Your task to perform on an android device: turn vacation reply on in the gmail app Image 0: 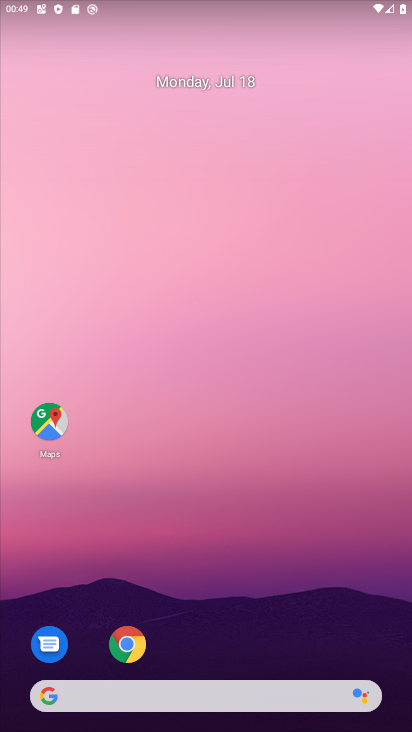
Step 0: press home button
Your task to perform on an android device: turn vacation reply on in the gmail app Image 1: 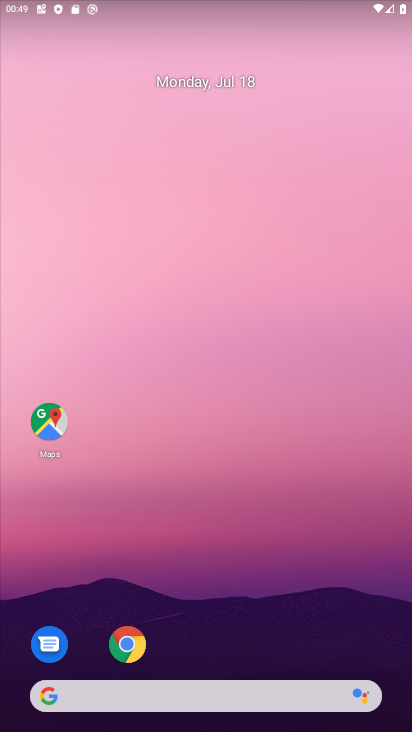
Step 1: drag from (245, 664) to (273, 73)
Your task to perform on an android device: turn vacation reply on in the gmail app Image 2: 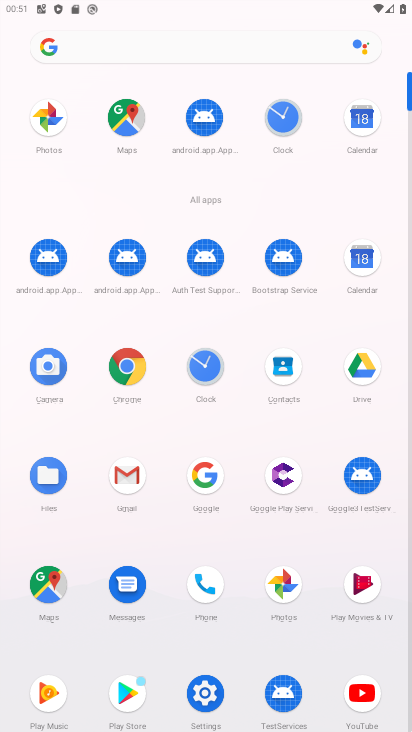
Step 2: click (114, 495)
Your task to perform on an android device: turn vacation reply on in the gmail app Image 3: 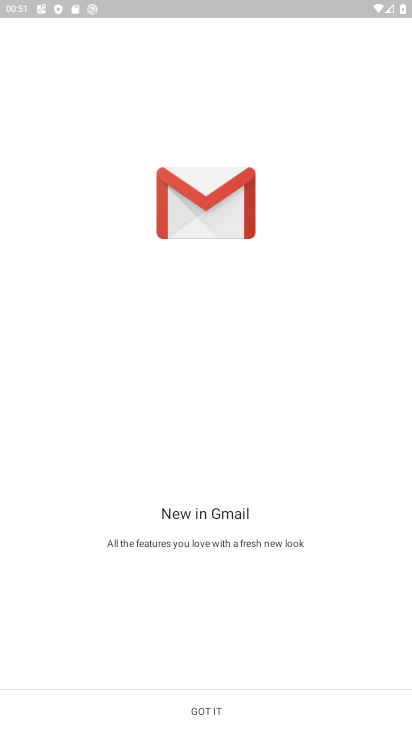
Step 3: click (207, 699)
Your task to perform on an android device: turn vacation reply on in the gmail app Image 4: 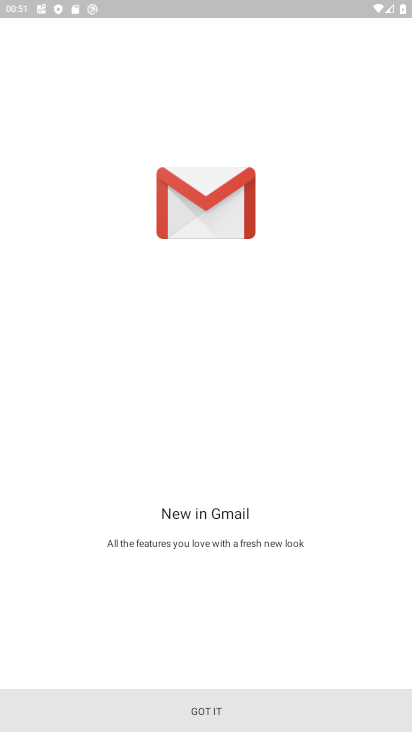
Step 4: click (207, 699)
Your task to perform on an android device: turn vacation reply on in the gmail app Image 5: 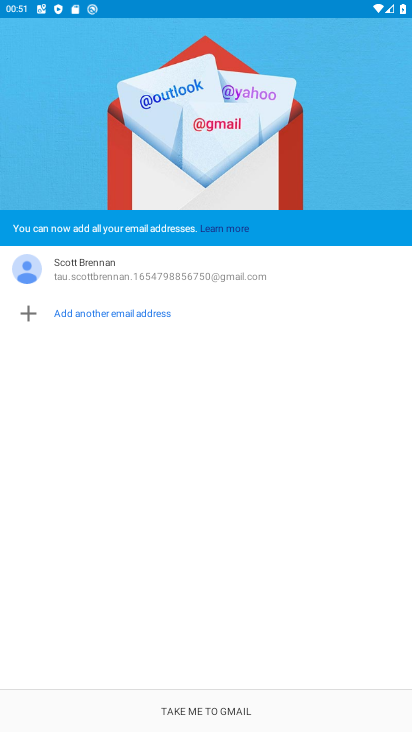
Step 5: click (205, 709)
Your task to perform on an android device: turn vacation reply on in the gmail app Image 6: 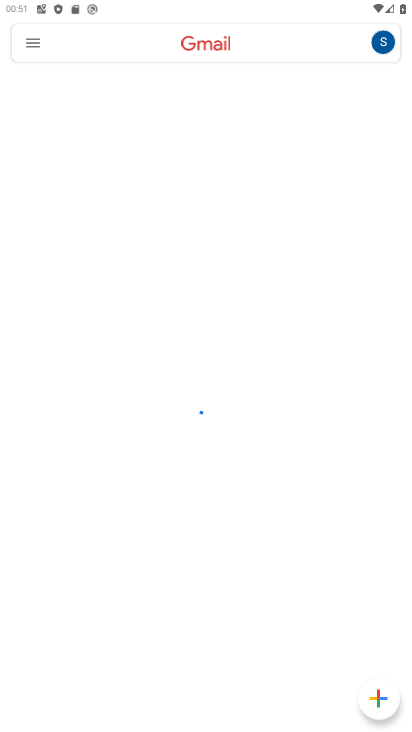
Step 6: click (36, 44)
Your task to perform on an android device: turn vacation reply on in the gmail app Image 7: 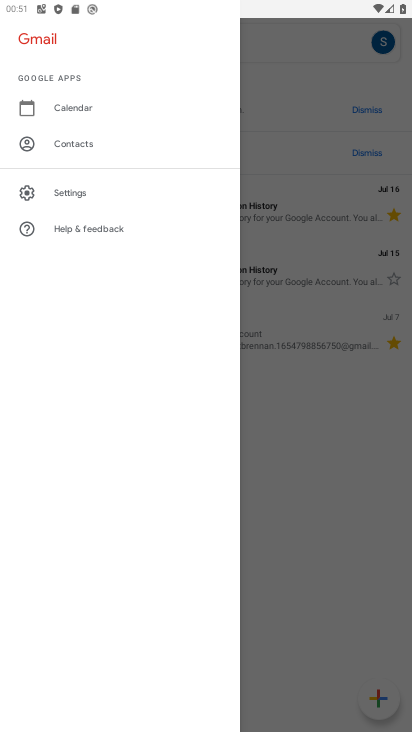
Step 7: click (50, 190)
Your task to perform on an android device: turn vacation reply on in the gmail app Image 8: 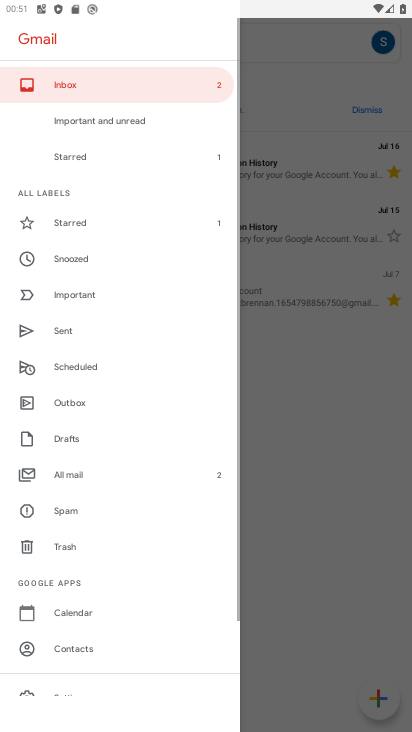
Step 8: drag from (102, 677) to (99, 233)
Your task to perform on an android device: turn vacation reply on in the gmail app Image 9: 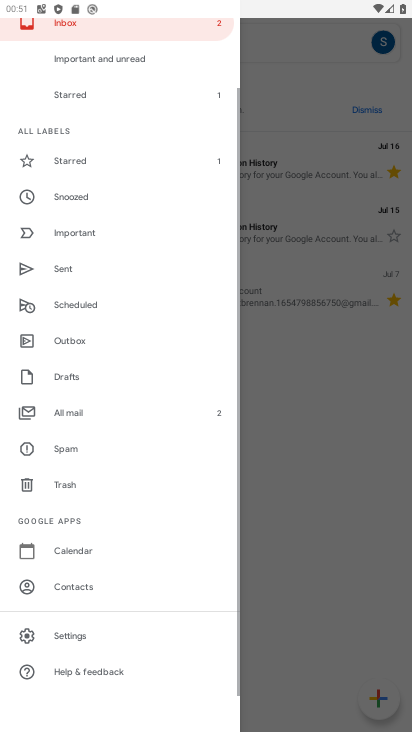
Step 9: click (58, 625)
Your task to perform on an android device: turn vacation reply on in the gmail app Image 10: 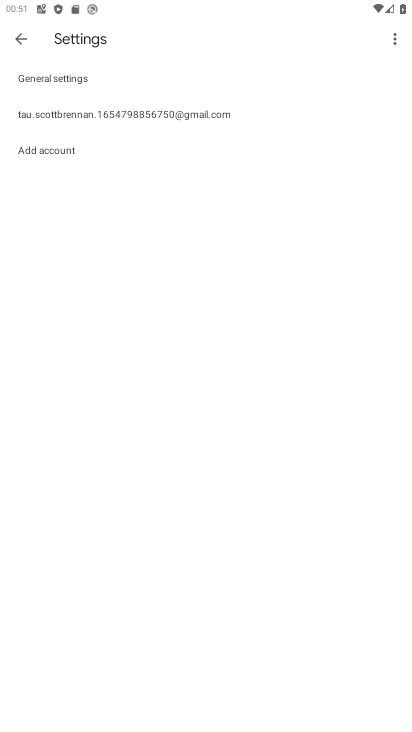
Step 10: click (113, 117)
Your task to perform on an android device: turn vacation reply on in the gmail app Image 11: 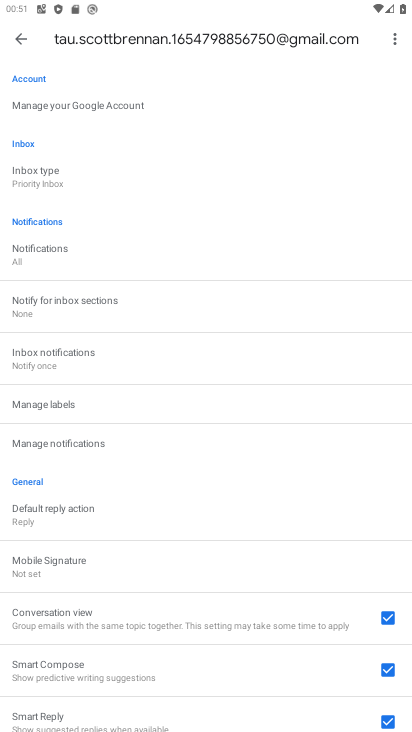
Step 11: drag from (68, 553) to (92, 103)
Your task to perform on an android device: turn vacation reply on in the gmail app Image 12: 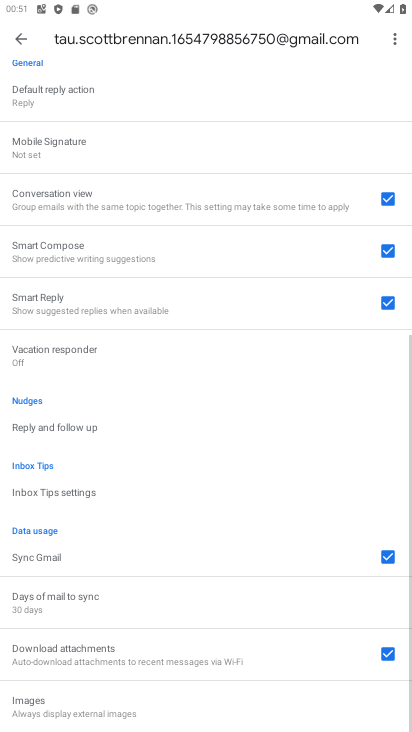
Step 12: click (81, 366)
Your task to perform on an android device: turn vacation reply on in the gmail app Image 13: 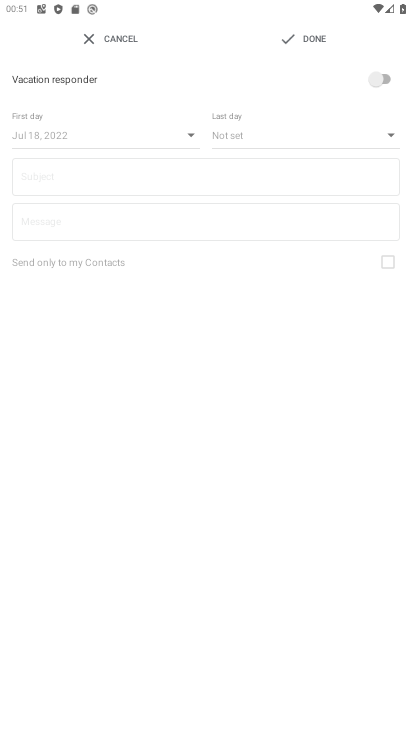
Step 13: click (384, 80)
Your task to perform on an android device: turn vacation reply on in the gmail app Image 14: 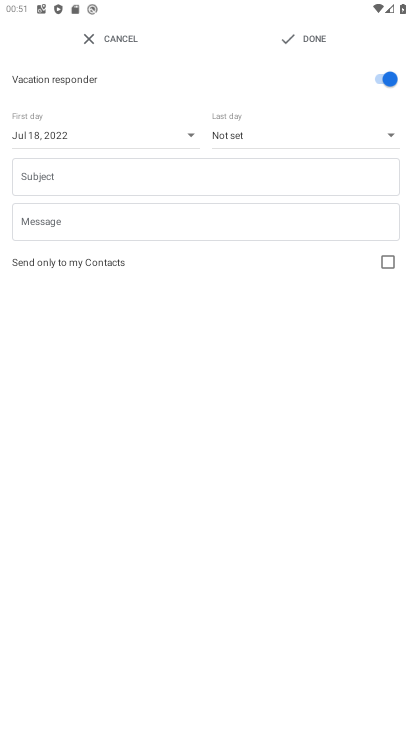
Step 14: click (66, 184)
Your task to perform on an android device: turn vacation reply on in the gmail app Image 15: 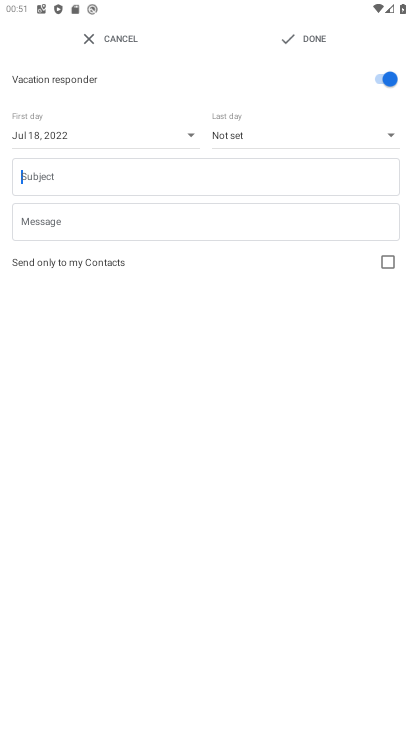
Step 15: click (64, 175)
Your task to perform on an android device: turn vacation reply on in the gmail app Image 16: 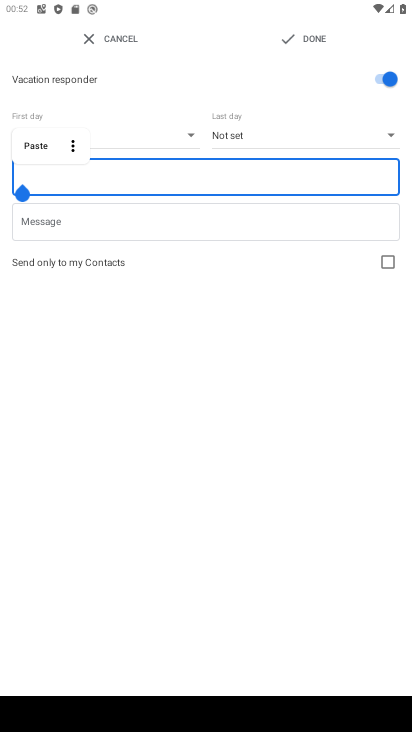
Step 16: type "ghfglj"
Your task to perform on an android device: turn vacation reply on in the gmail app Image 17: 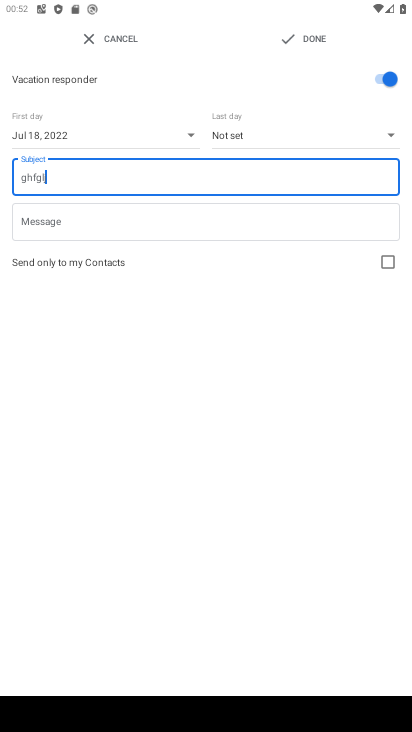
Step 17: click (140, 226)
Your task to perform on an android device: turn vacation reply on in the gmail app Image 18: 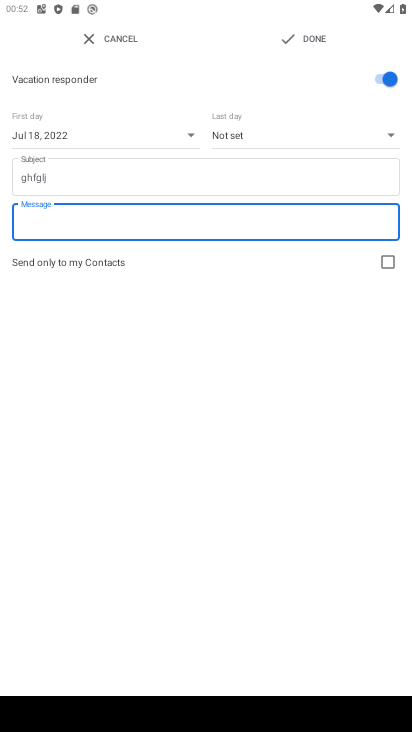
Step 18: click (140, 226)
Your task to perform on an android device: turn vacation reply on in the gmail app Image 19: 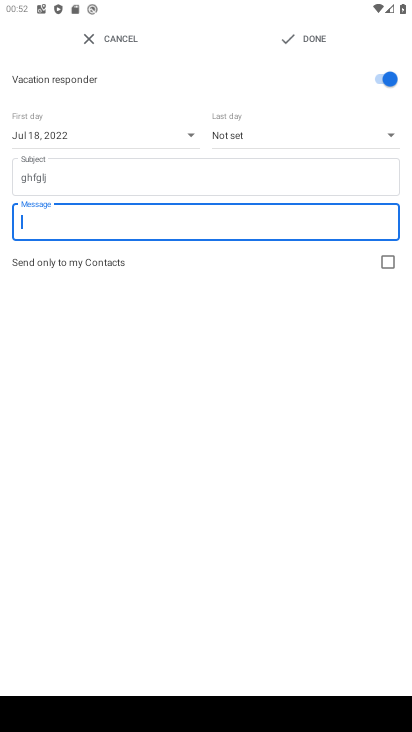
Step 19: type "abhigdjhgkejhckdeothvcngj"
Your task to perform on an android device: turn vacation reply on in the gmail app Image 20: 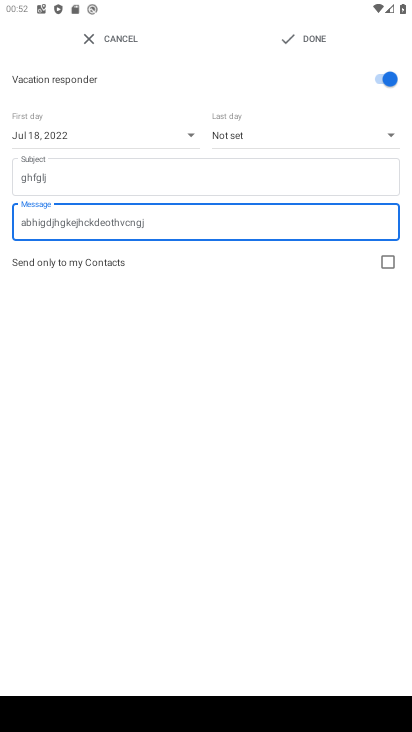
Step 20: click (308, 143)
Your task to perform on an android device: turn vacation reply on in the gmail app Image 21: 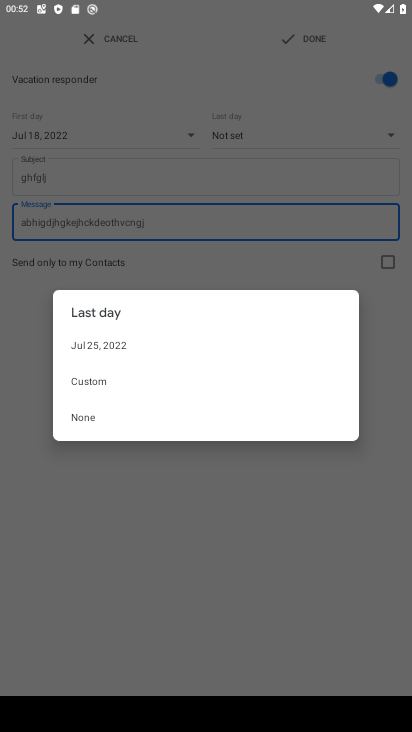
Step 21: click (122, 340)
Your task to perform on an android device: turn vacation reply on in the gmail app Image 22: 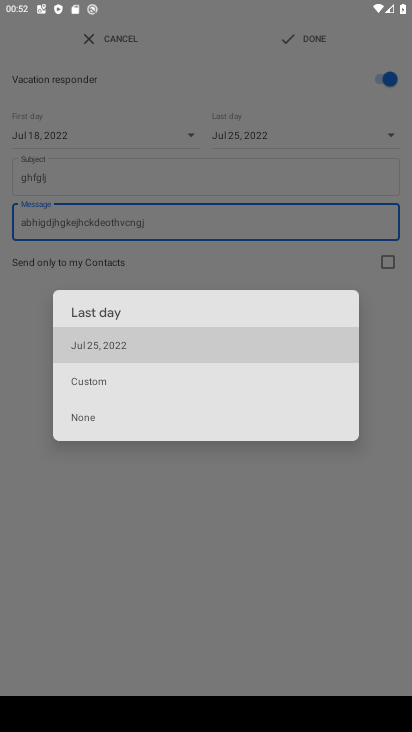
Step 22: click (314, 42)
Your task to perform on an android device: turn vacation reply on in the gmail app Image 23: 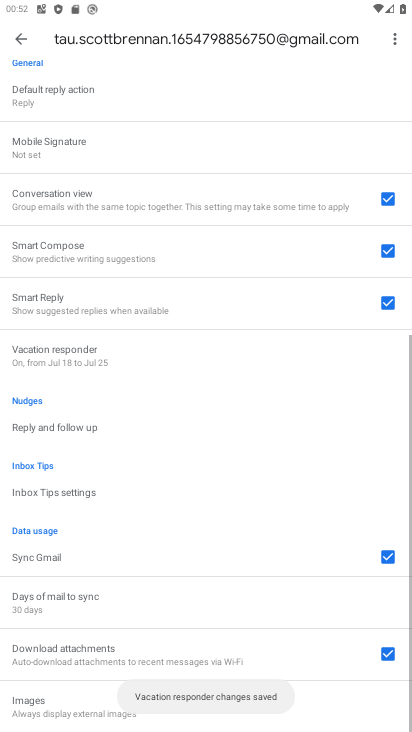
Step 23: task complete